Your task to perform on an android device: check storage Image 0: 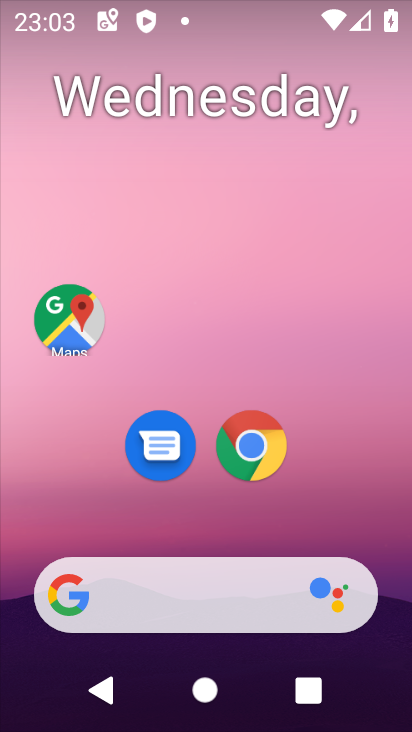
Step 0: drag from (325, 503) to (318, 273)
Your task to perform on an android device: check storage Image 1: 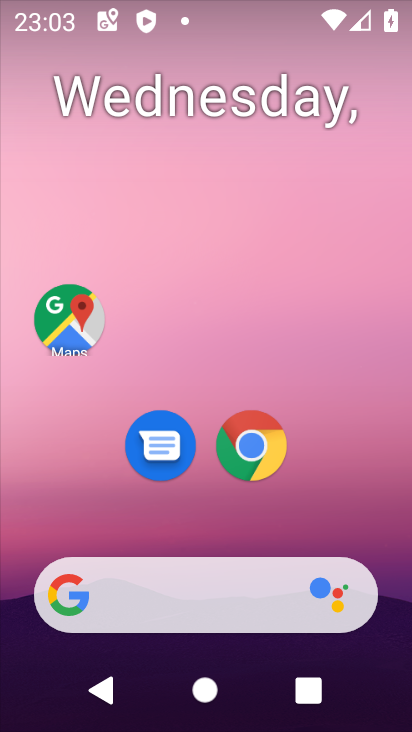
Step 1: drag from (335, 553) to (335, 181)
Your task to perform on an android device: check storage Image 2: 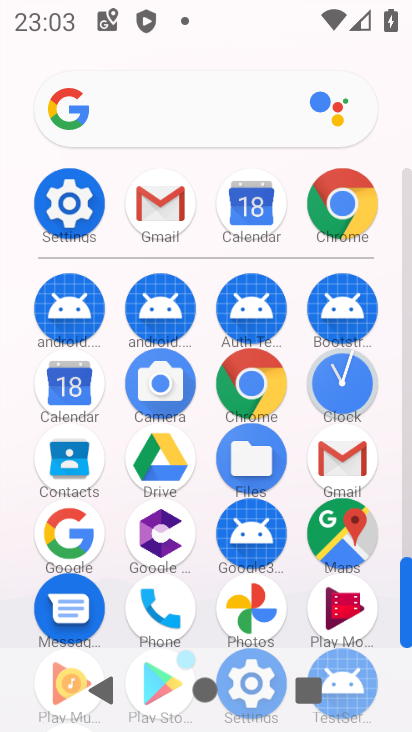
Step 2: click (75, 200)
Your task to perform on an android device: check storage Image 3: 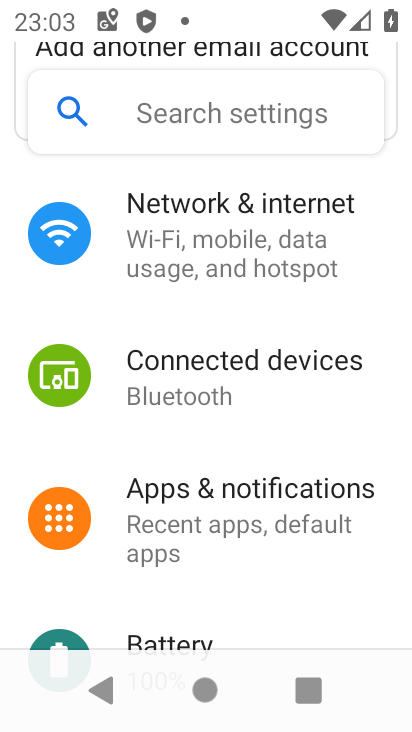
Step 3: drag from (199, 606) to (205, 244)
Your task to perform on an android device: check storage Image 4: 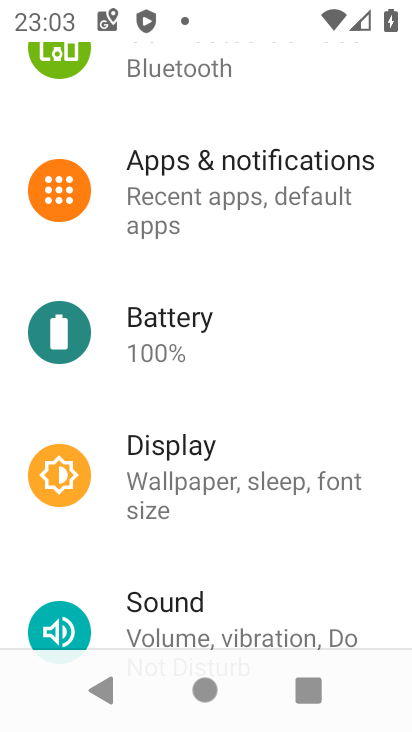
Step 4: drag from (178, 547) to (228, 249)
Your task to perform on an android device: check storage Image 5: 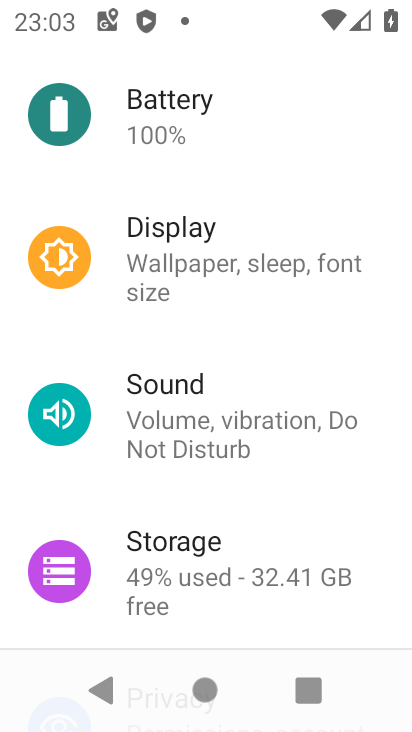
Step 5: click (217, 567)
Your task to perform on an android device: check storage Image 6: 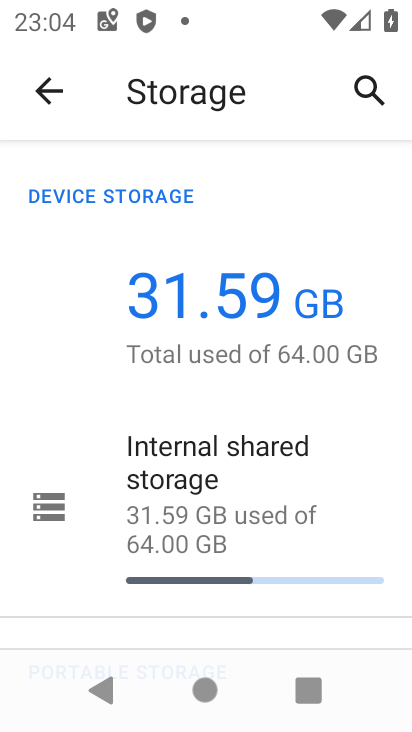
Step 6: task complete